Your task to perform on an android device: Is it going to rain tomorrow? Image 0: 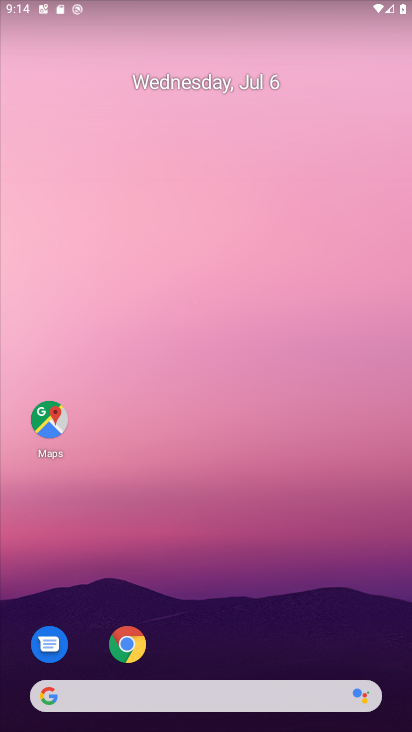
Step 0: drag from (206, 680) to (245, 29)
Your task to perform on an android device: Is it going to rain tomorrow? Image 1: 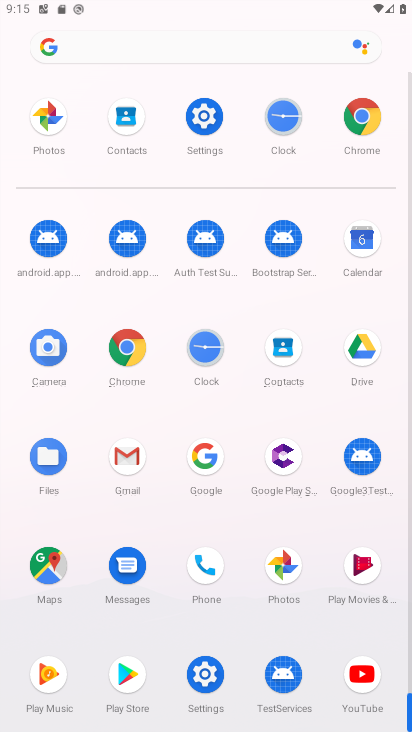
Step 1: drag from (242, 563) to (227, 370)
Your task to perform on an android device: Is it going to rain tomorrow? Image 2: 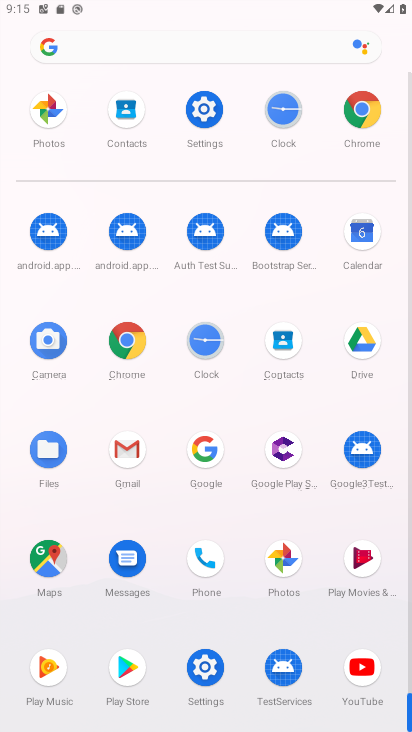
Step 2: click (206, 451)
Your task to perform on an android device: Is it going to rain tomorrow? Image 3: 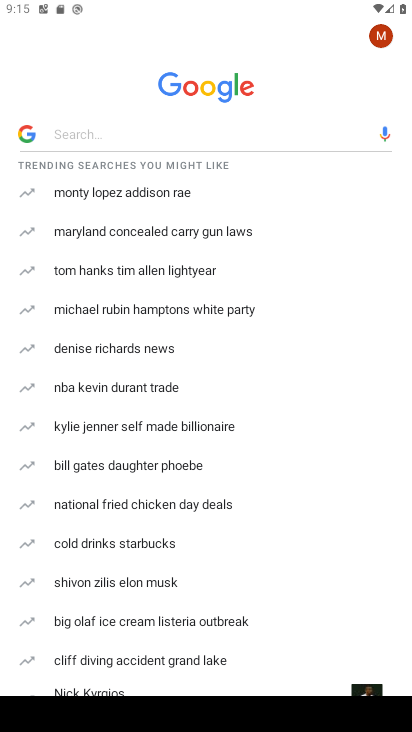
Step 3: type "tommorrow weather"
Your task to perform on an android device: Is it going to rain tomorrow? Image 4: 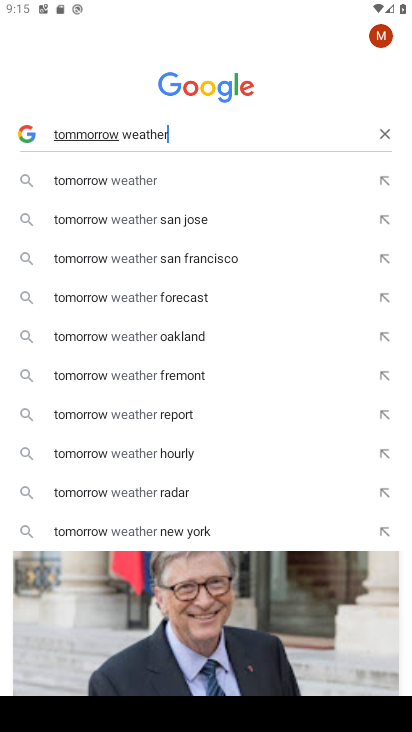
Step 4: click (170, 178)
Your task to perform on an android device: Is it going to rain tomorrow? Image 5: 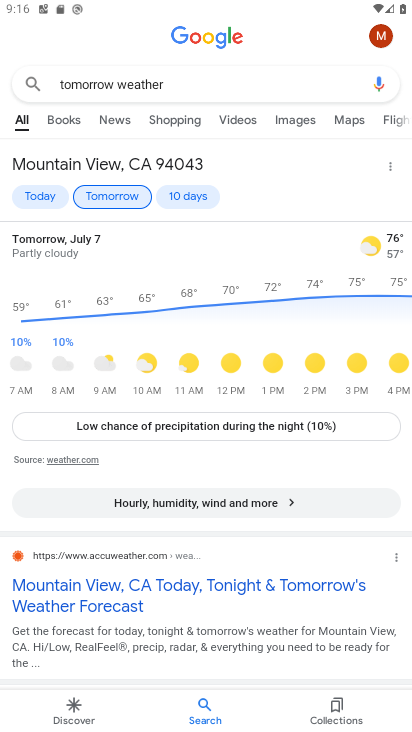
Step 5: task complete